Your task to perform on an android device: Open notification settings Image 0: 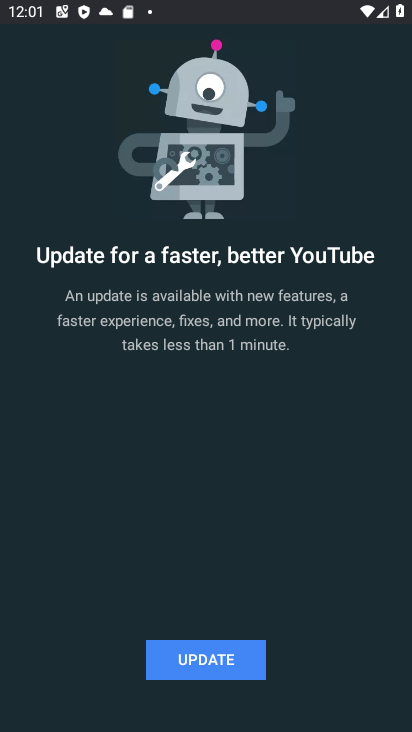
Step 0: press home button
Your task to perform on an android device: Open notification settings Image 1: 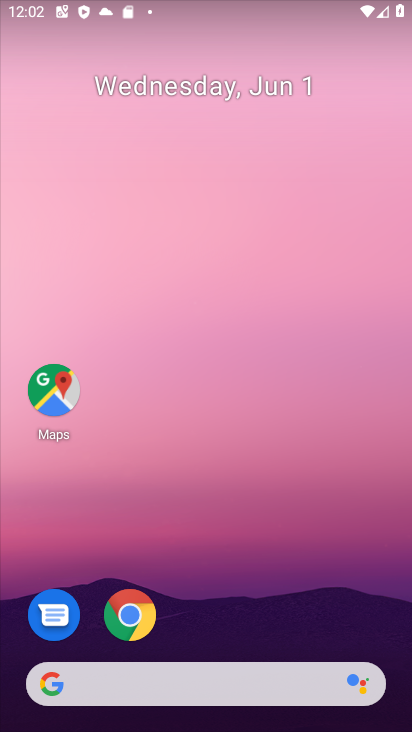
Step 1: task complete